Your task to perform on an android device: turn pop-ups on in chrome Image 0: 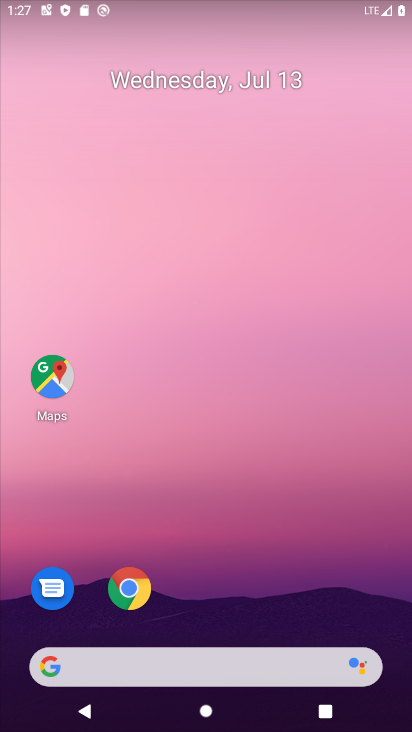
Step 0: click (122, 586)
Your task to perform on an android device: turn pop-ups on in chrome Image 1: 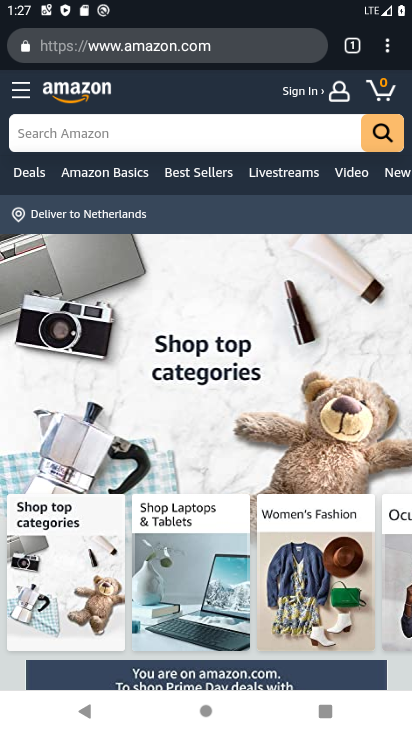
Step 1: click (381, 47)
Your task to perform on an android device: turn pop-ups on in chrome Image 2: 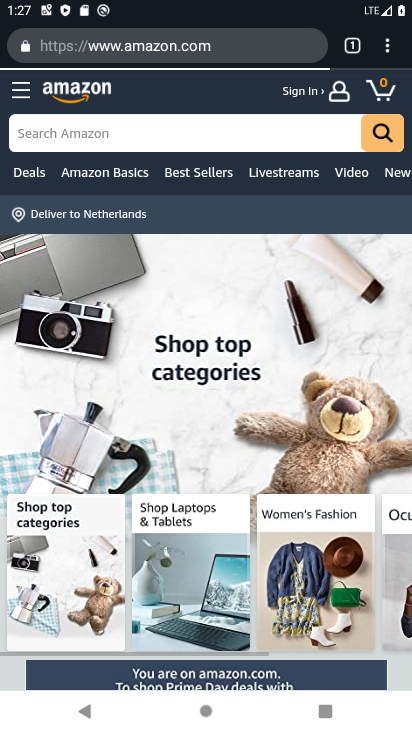
Step 2: click (388, 48)
Your task to perform on an android device: turn pop-ups on in chrome Image 3: 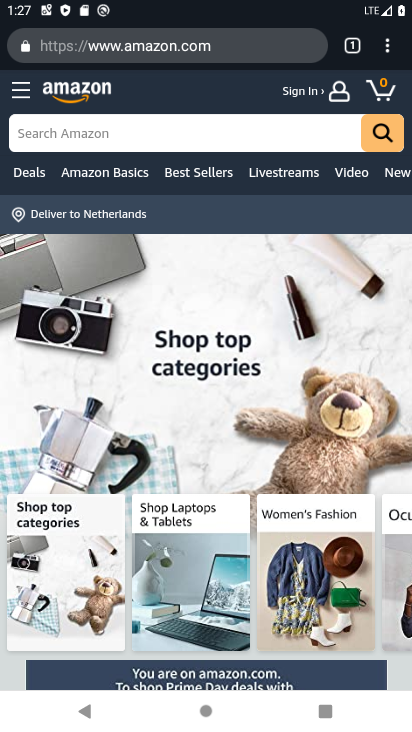
Step 3: click (388, 48)
Your task to perform on an android device: turn pop-ups on in chrome Image 4: 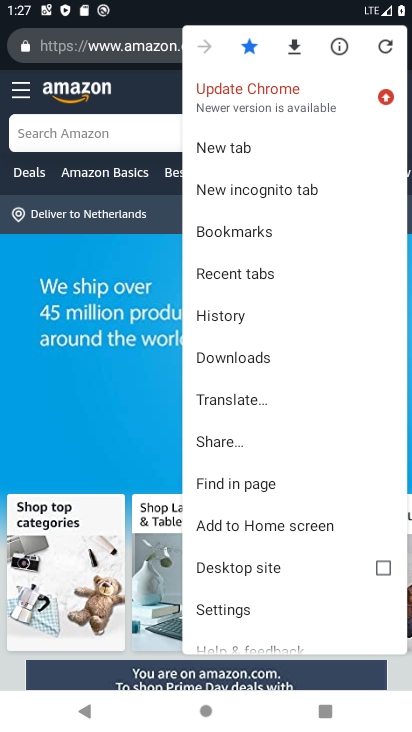
Step 4: drag from (311, 370) to (313, 300)
Your task to perform on an android device: turn pop-ups on in chrome Image 5: 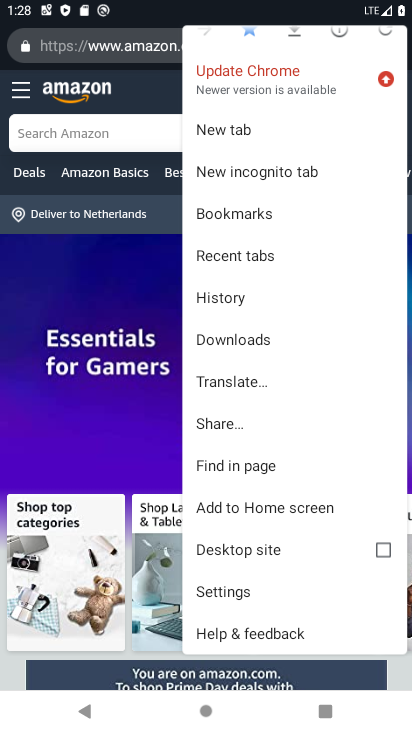
Step 5: click (228, 587)
Your task to perform on an android device: turn pop-ups on in chrome Image 6: 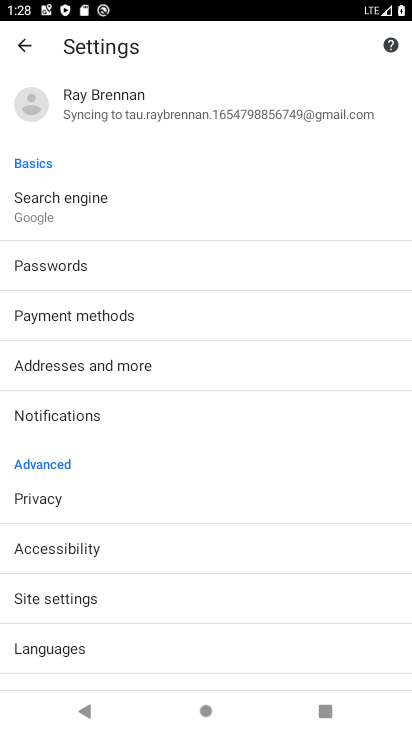
Step 6: click (65, 598)
Your task to perform on an android device: turn pop-ups on in chrome Image 7: 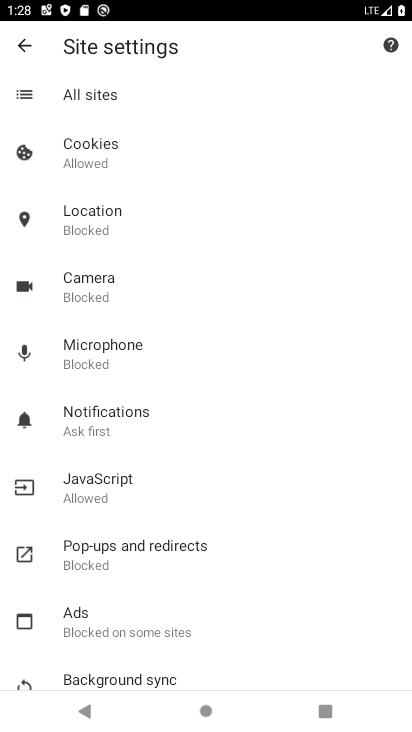
Step 7: click (102, 546)
Your task to perform on an android device: turn pop-ups on in chrome Image 8: 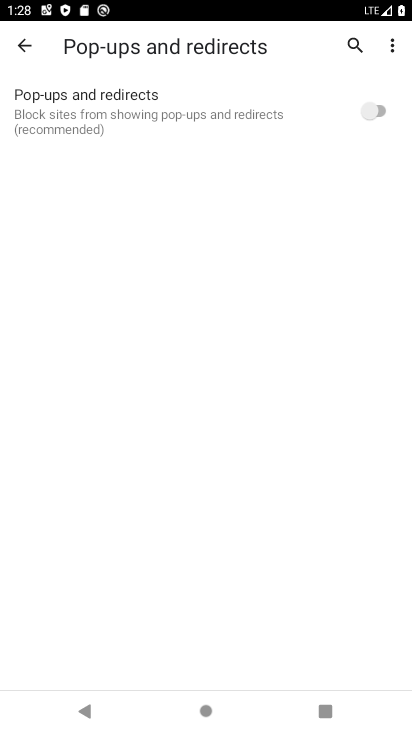
Step 8: click (386, 111)
Your task to perform on an android device: turn pop-ups on in chrome Image 9: 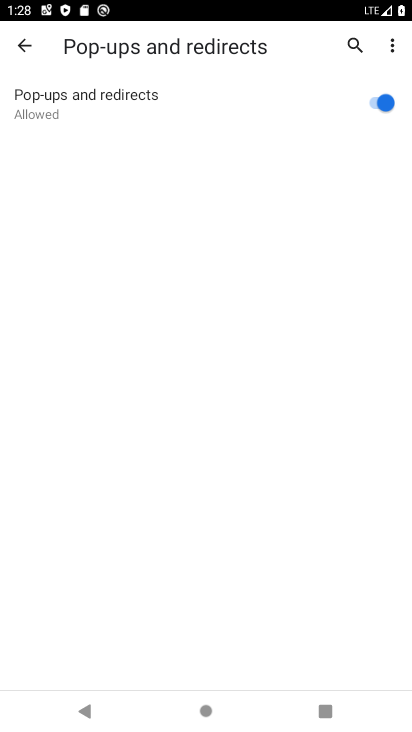
Step 9: task complete